Your task to perform on an android device: refresh tabs in the chrome app Image 0: 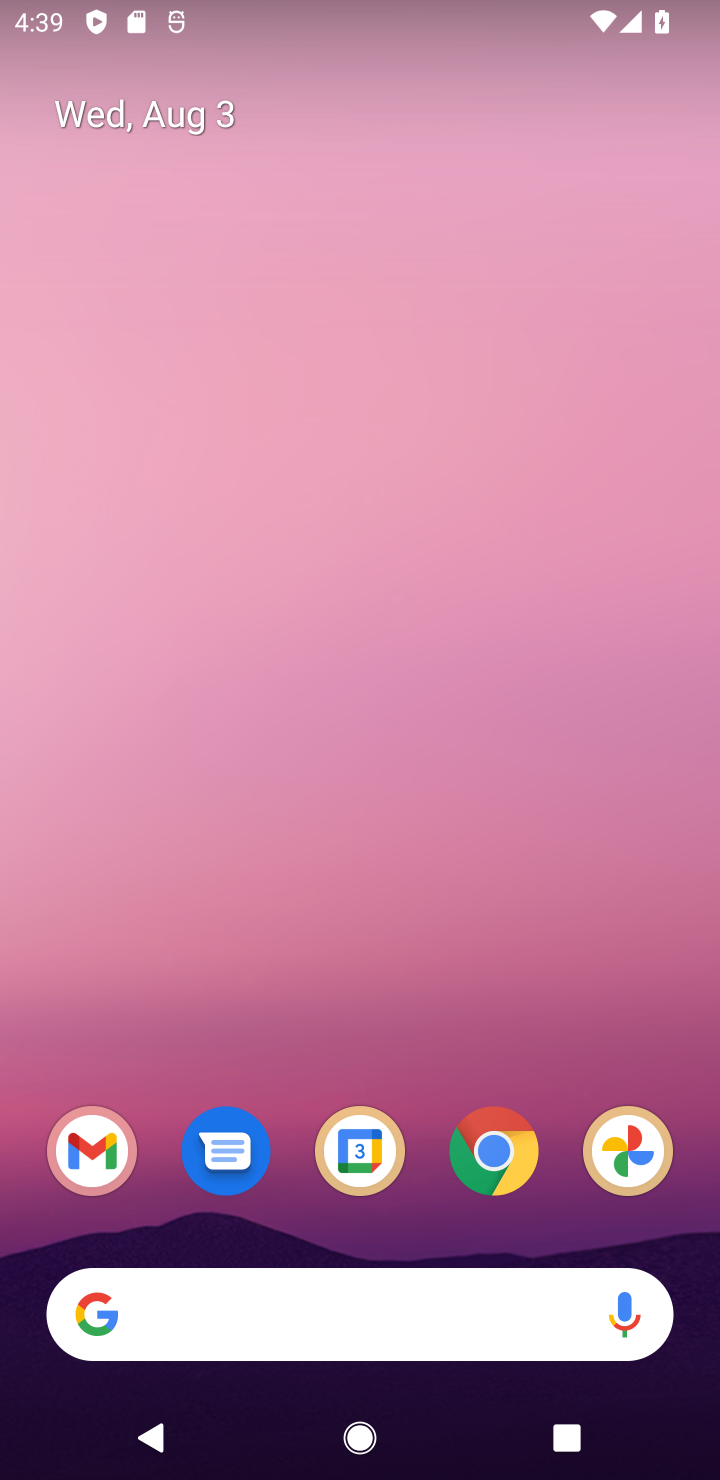
Step 0: click (501, 1153)
Your task to perform on an android device: refresh tabs in the chrome app Image 1: 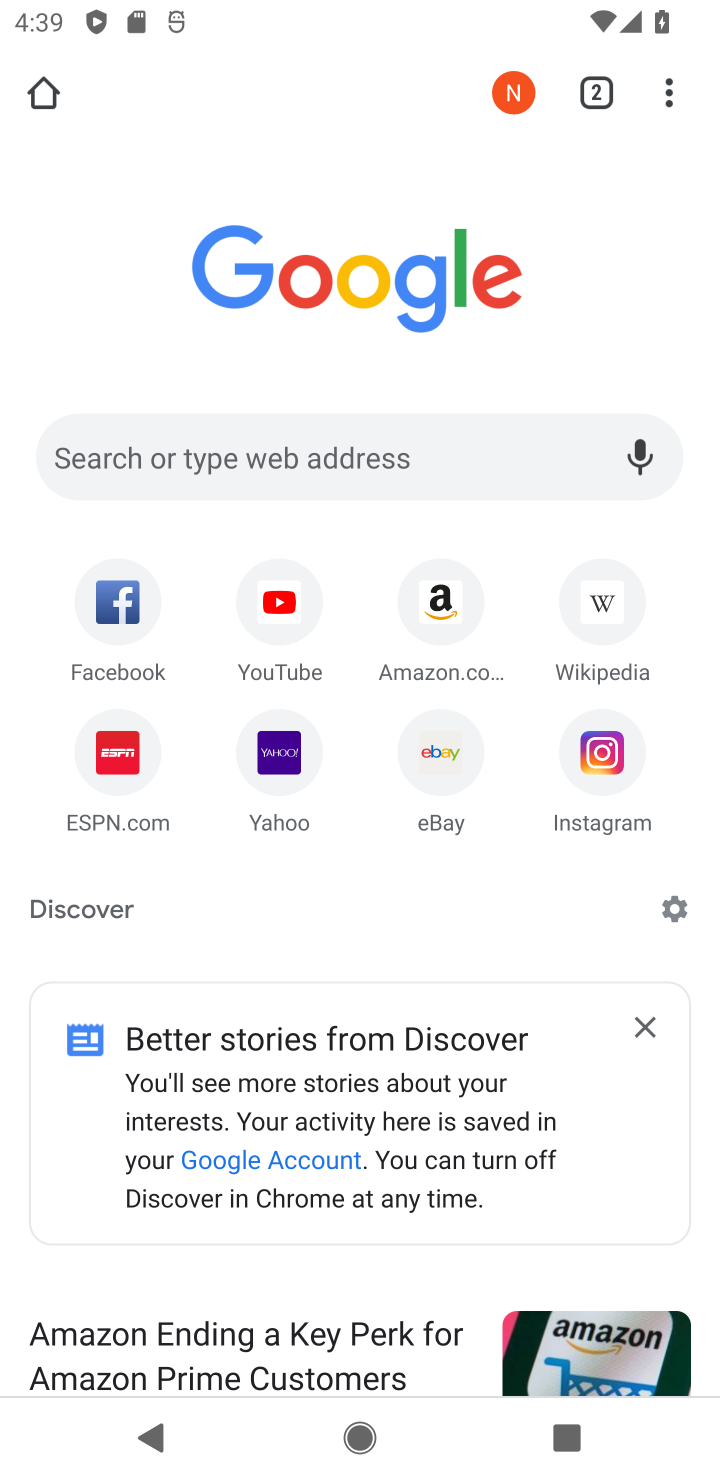
Step 1: click (668, 99)
Your task to perform on an android device: refresh tabs in the chrome app Image 2: 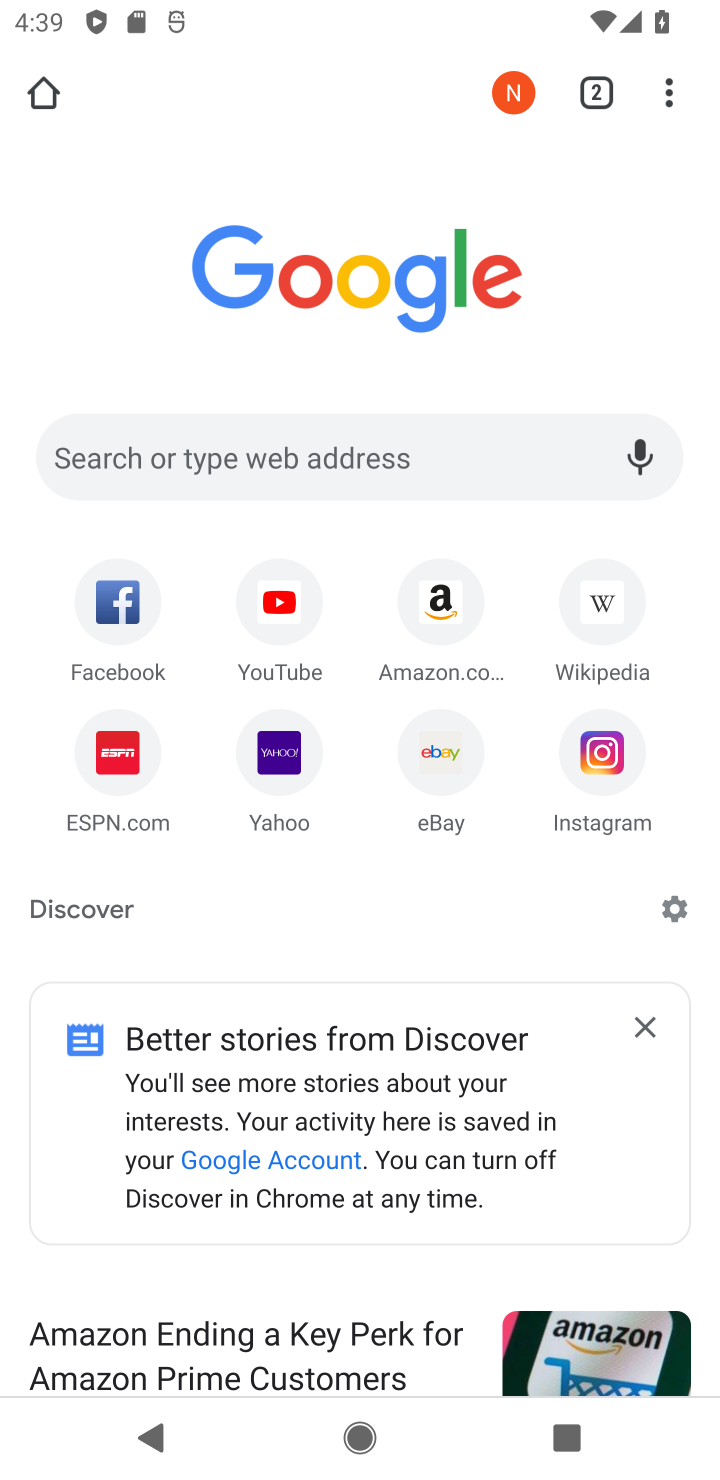
Step 2: click (679, 98)
Your task to perform on an android device: refresh tabs in the chrome app Image 3: 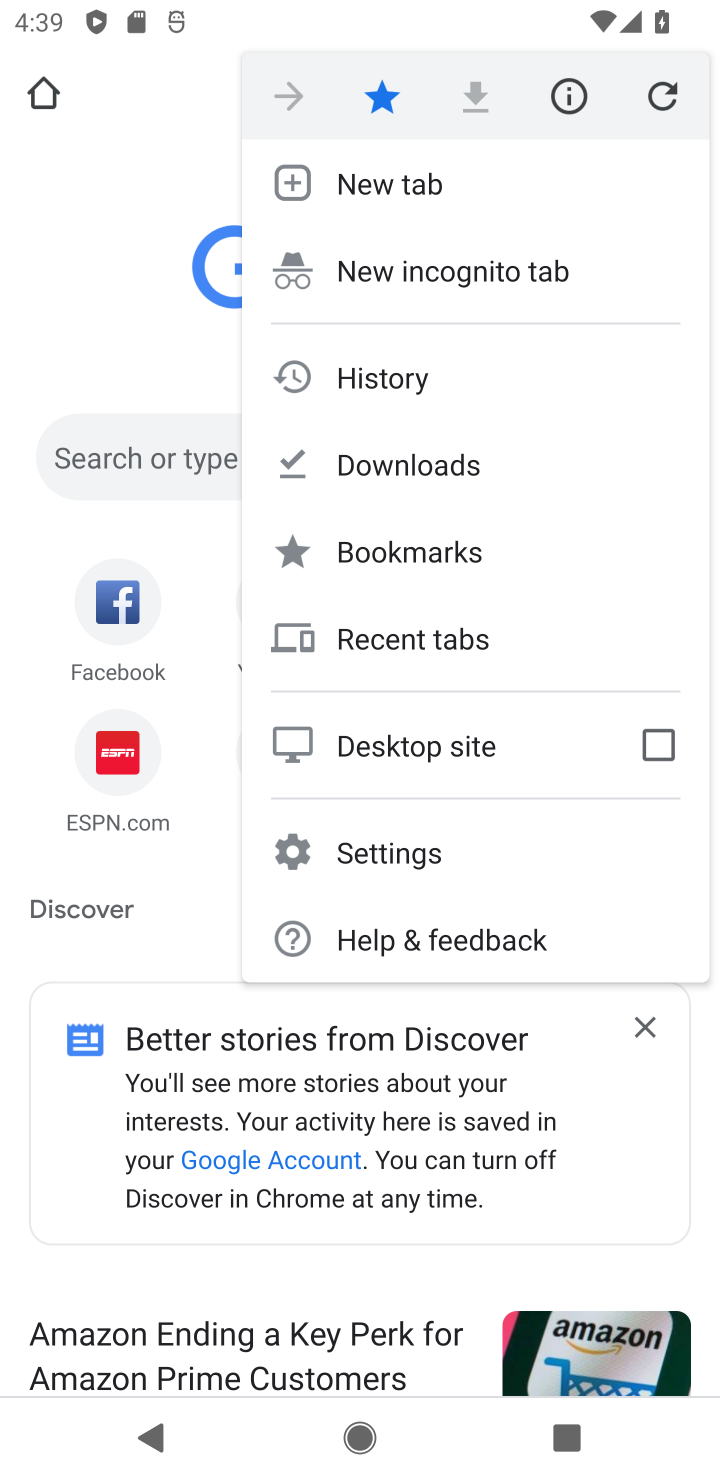
Step 3: click (658, 97)
Your task to perform on an android device: refresh tabs in the chrome app Image 4: 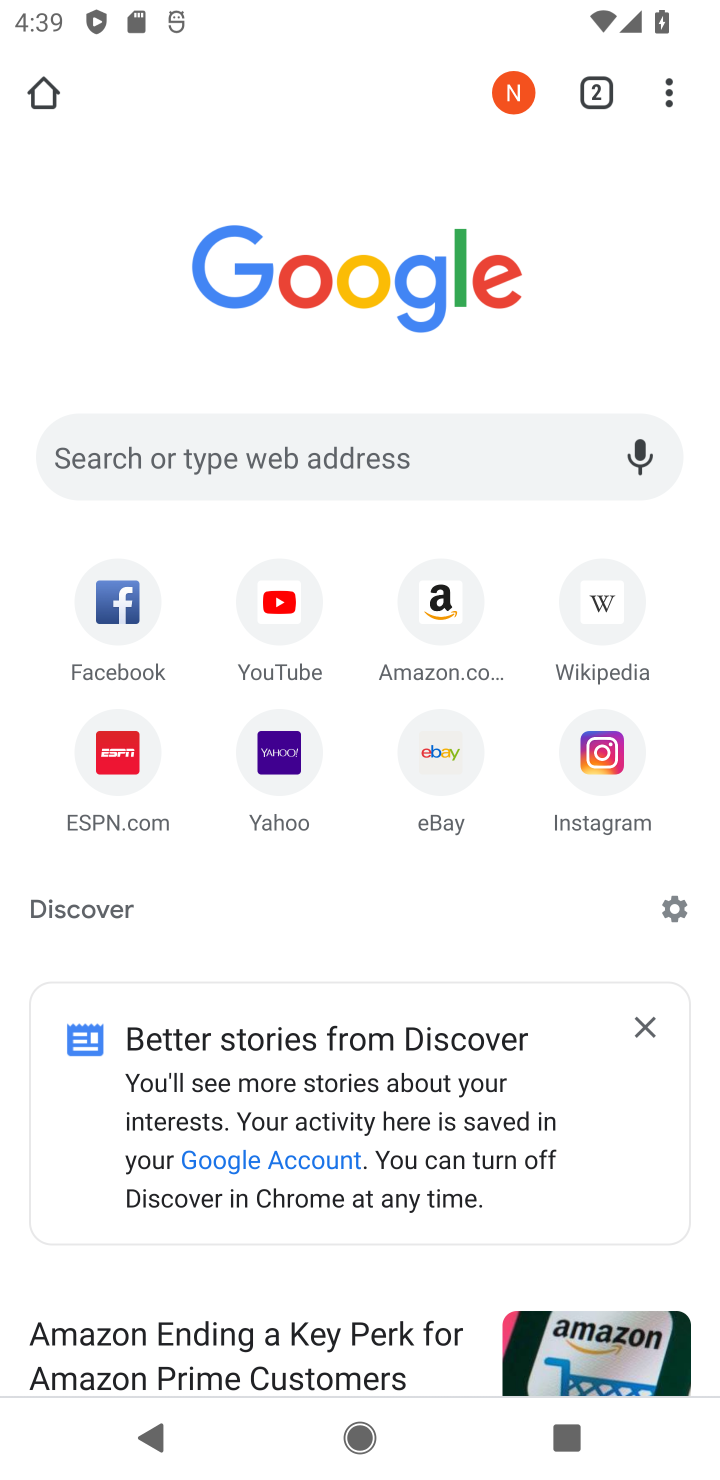
Step 4: task complete